Your task to perform on an android device: Open maps Image 0: 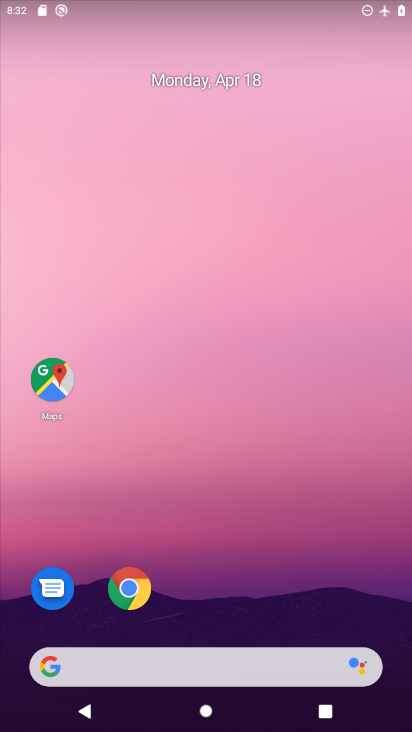
Step 0: click (55, 385)
Your task to perform on an android device: Open maps Image 1: 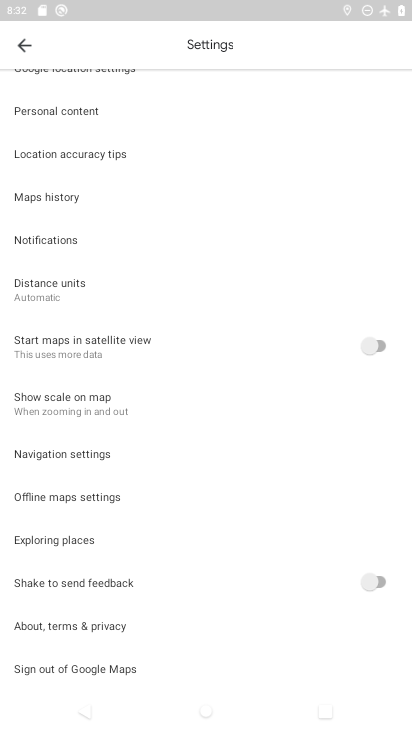
Step 1: click (24, 49)
Your task to perform on an android device: Open maps Image 2: 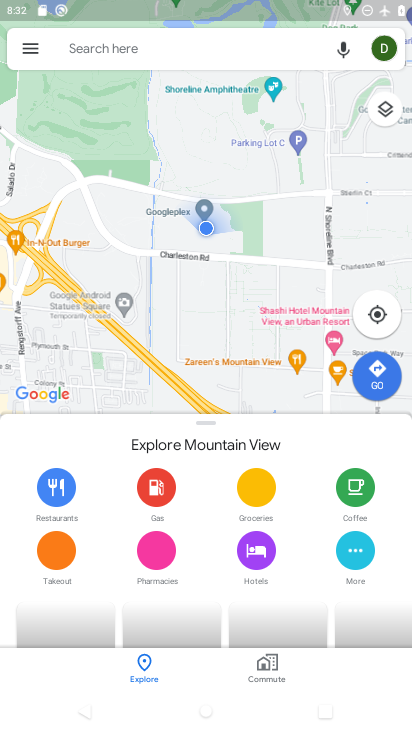
Step 2: task complete